Your task to perform on an android device: Search for "amazon basics triple a" on costco.com, select the first entry, and add it to the cart. Image 0: 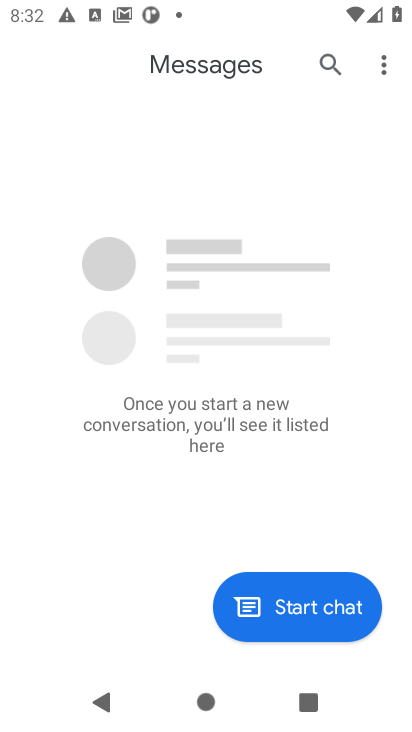
Step 0: press home button
Your task to perform on an android device: Search for "amazon basics triple a" on costco.com, select the first entry, and add it to the cart. Image 1: 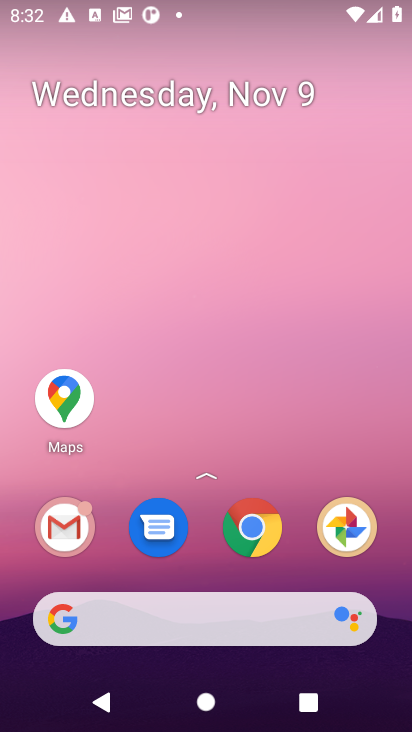
Step 1: click (249, 532)
Your task to perform on an android device: Search for "amazon basics triple a" on costco.com, select the first entry, and add it to the cart. Image 2: 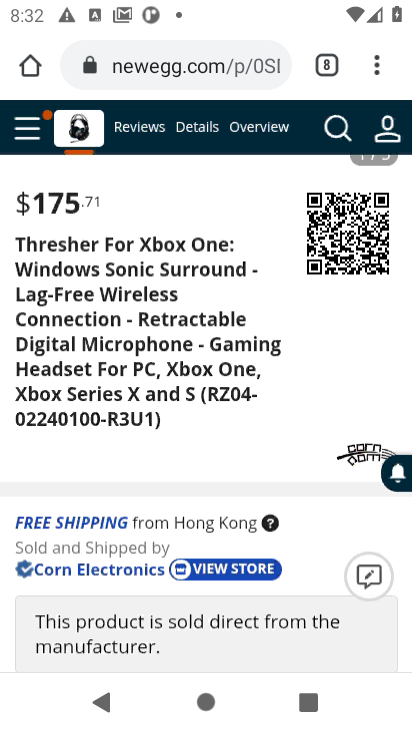
Step 2: click (168, 76)
Your task to perform on an android device: Search for "amazon basics triple a" on costco.com, select the first entry, and add it to the cart. Image 3: 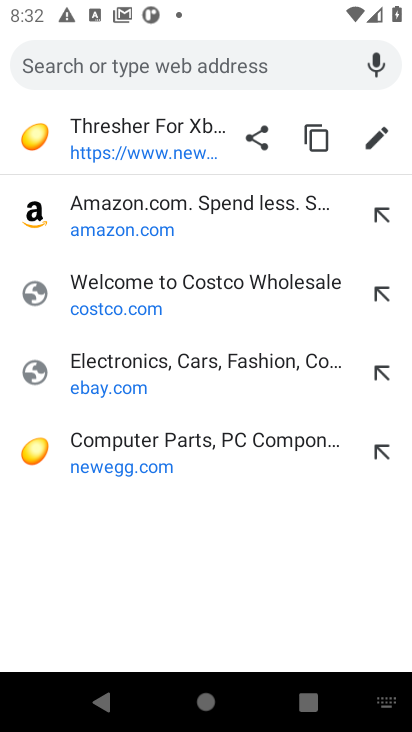
Step 3: click (100, 305)
Your task to perform on an android device: Search for "amazon basics triple a" on costco.com, select the first entry, and add it to the cart. Image 4: 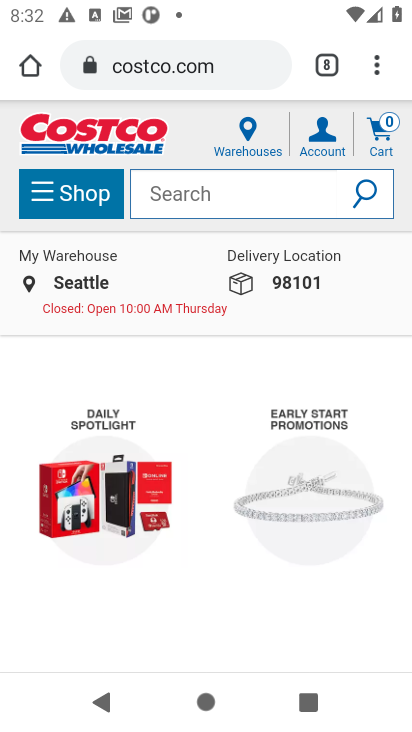
Step 4: click (211, 193)
Your task to perform on an android device: Search for "amazon basics triple a" on costco.com, select the first entry, and add it to the cart. Image 5: 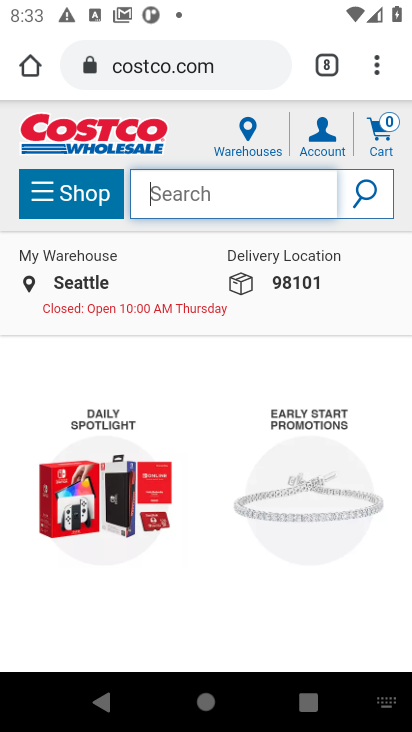
Step 5: type "amazon basics triple a"
Your task to perform on an android device: Search for "amazon basics triple a" on costco.com, select the first entry, and add it to the cart. Image 6: 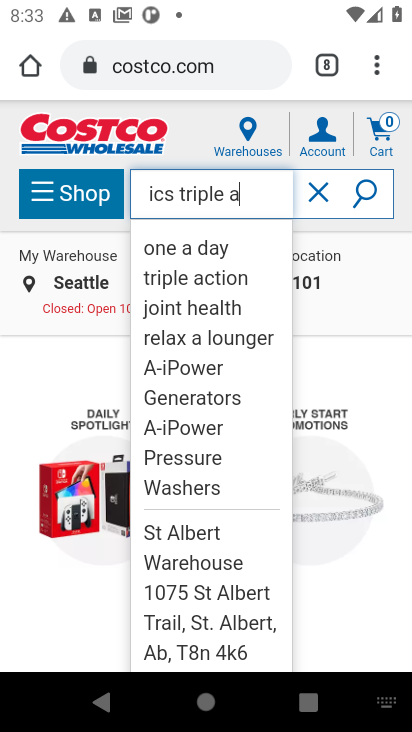
Step 6: click (367, 190)
Your task to perform on an android device: Search for "amazon basics triple a" on costco.com, select the first entry, and add it to the cart. Image 7: 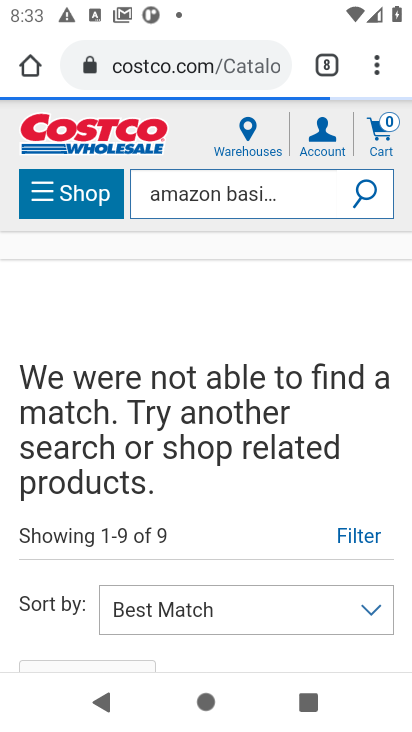
Step 7: task complete